Your task to perform on an android device: check android version Image 0: 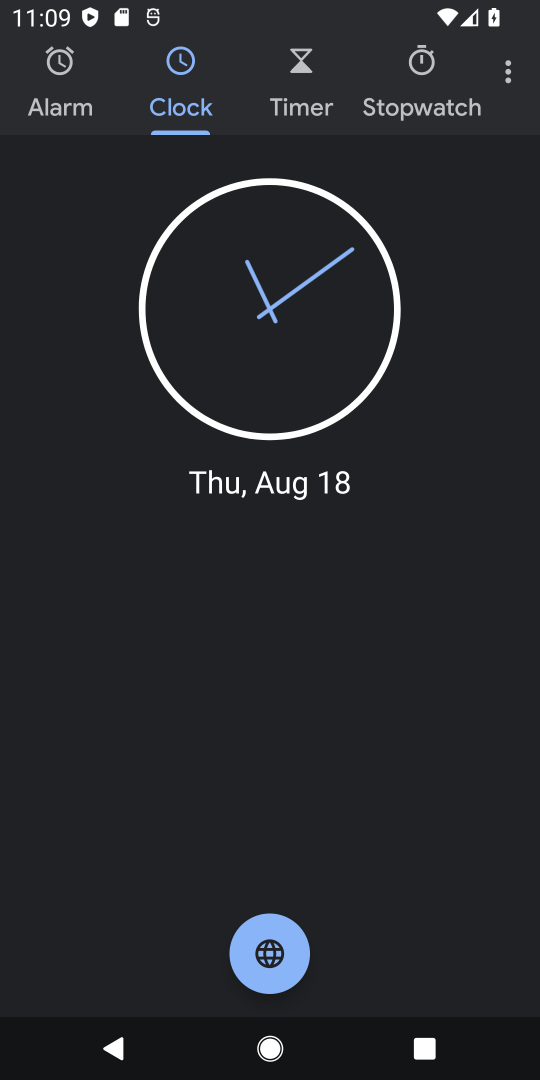
Step 0: press home button
Your task to perform on an android device: check android version Image 1: 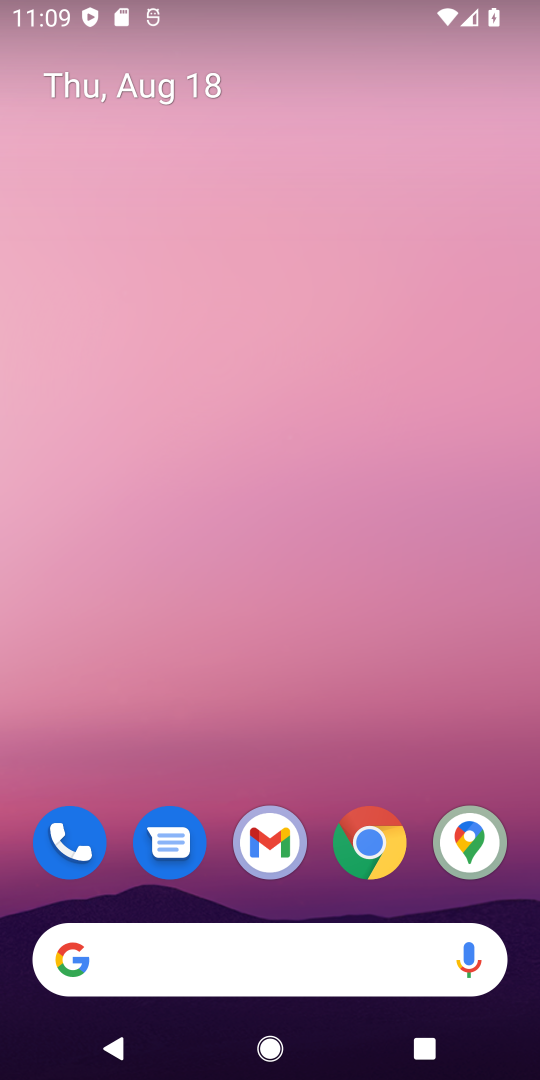
Step 1: drag from (203, 898) to (310, 155)
Your task to perform on an android device: check android version Image 2: 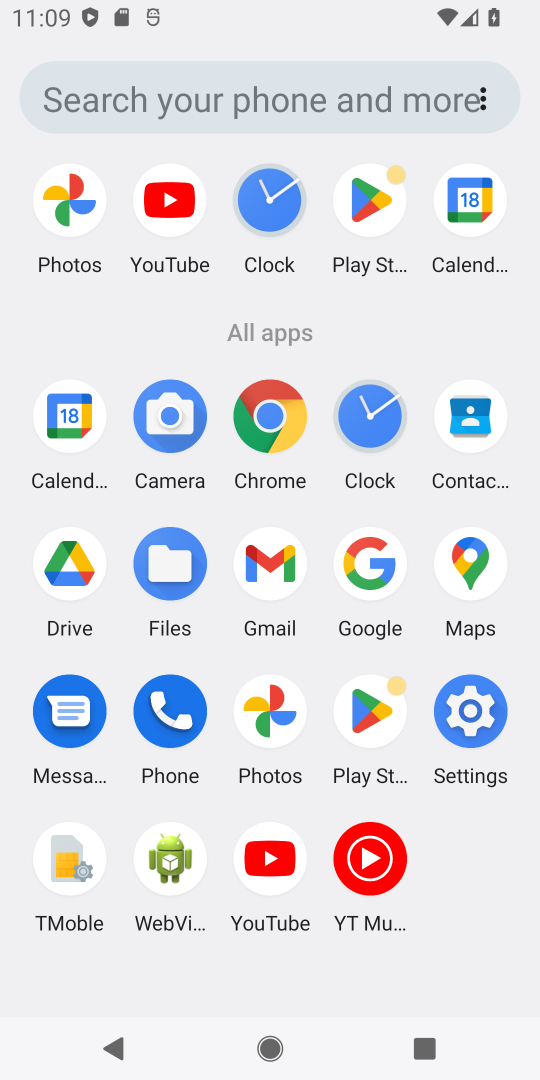
Step 2: click (477, 777)
Your task to perform on an android device: check android version Image 3: 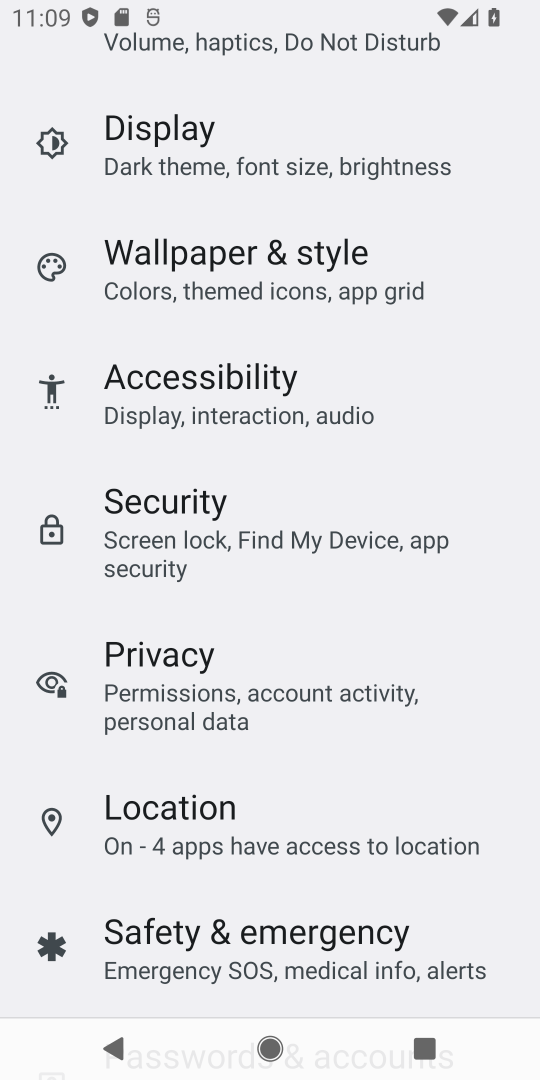
Step 3: drag from (390, 879) to (177, 67)
Your task to perform on an android device: check android version Image 4: 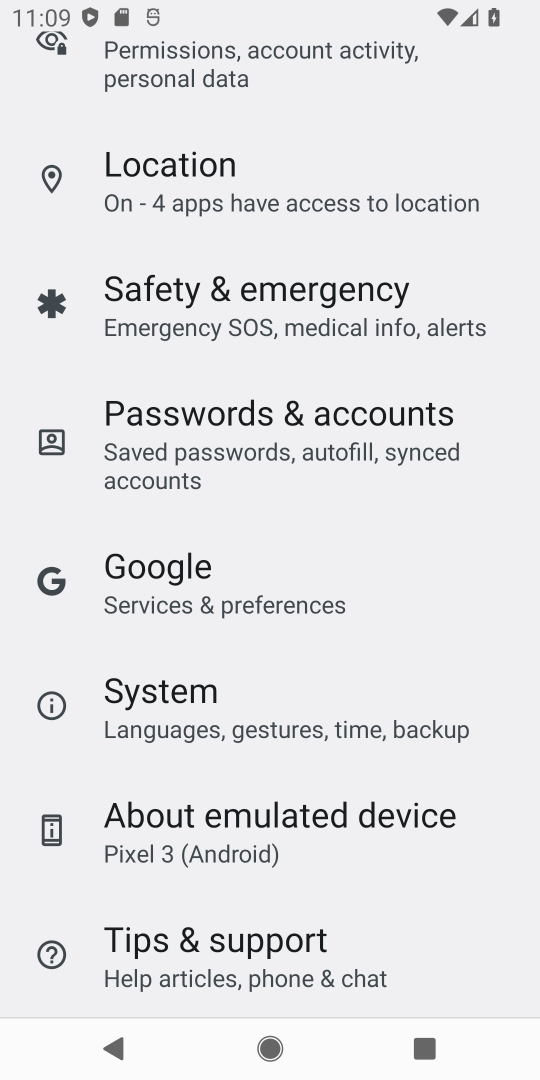
Step 4: drag from (421, 973) to (418, 292)
Your task to perform on an android device: check android version Image 5: 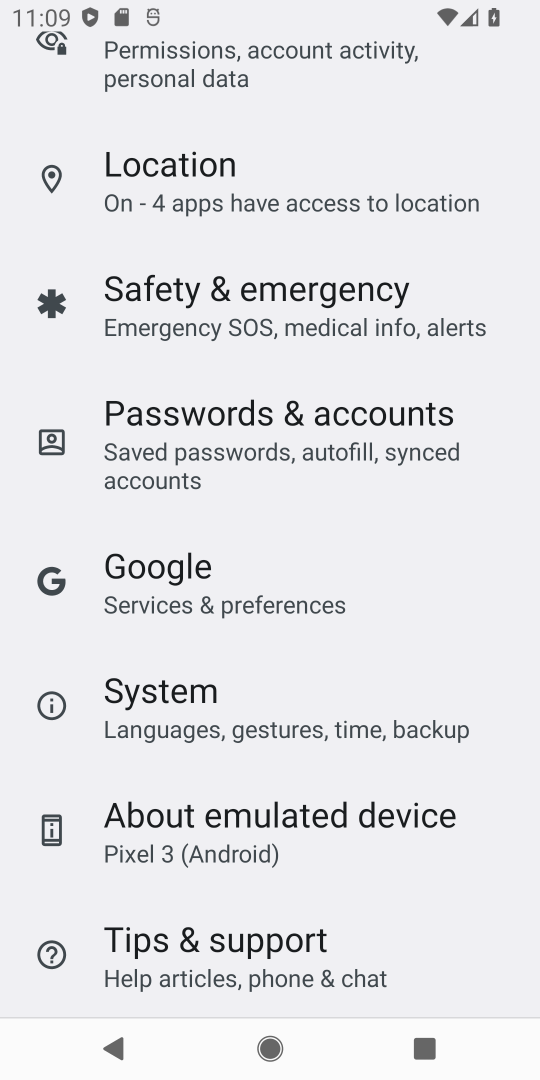
Step 5: drag from (412, 897) to (403, 357)
Your task to perform on an android device: check android version Image 6: 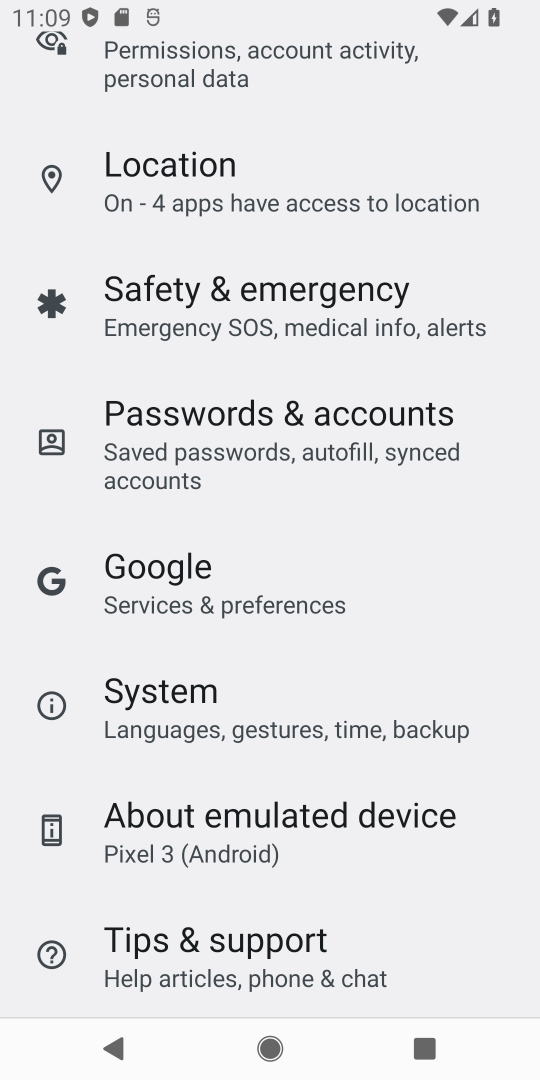
Step 6: click (378, 969)
Your task to perform on an android device: check android version Image 7: 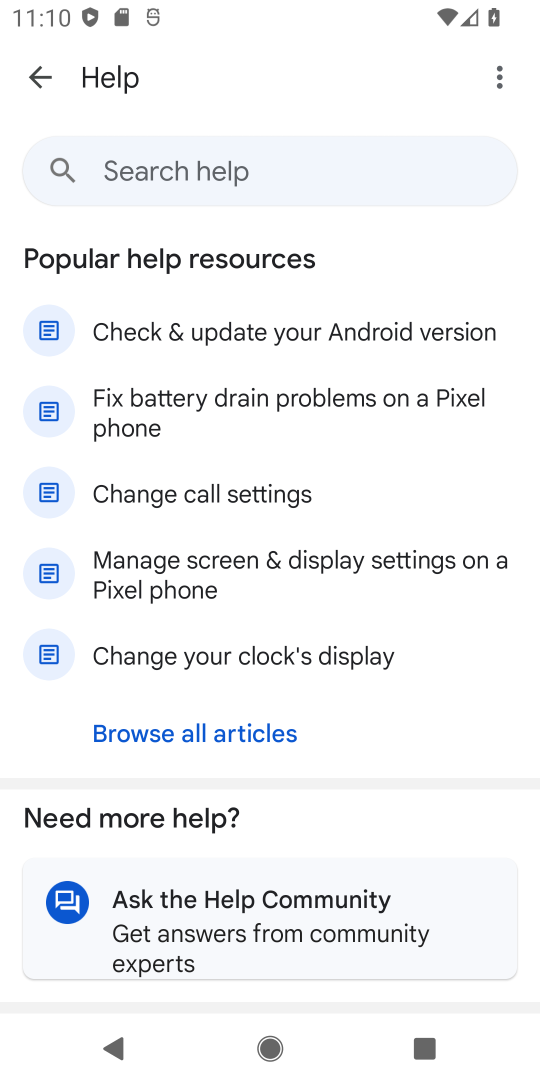
Step 7: press back button
Your task to perform on an android device: check android version Image 8: 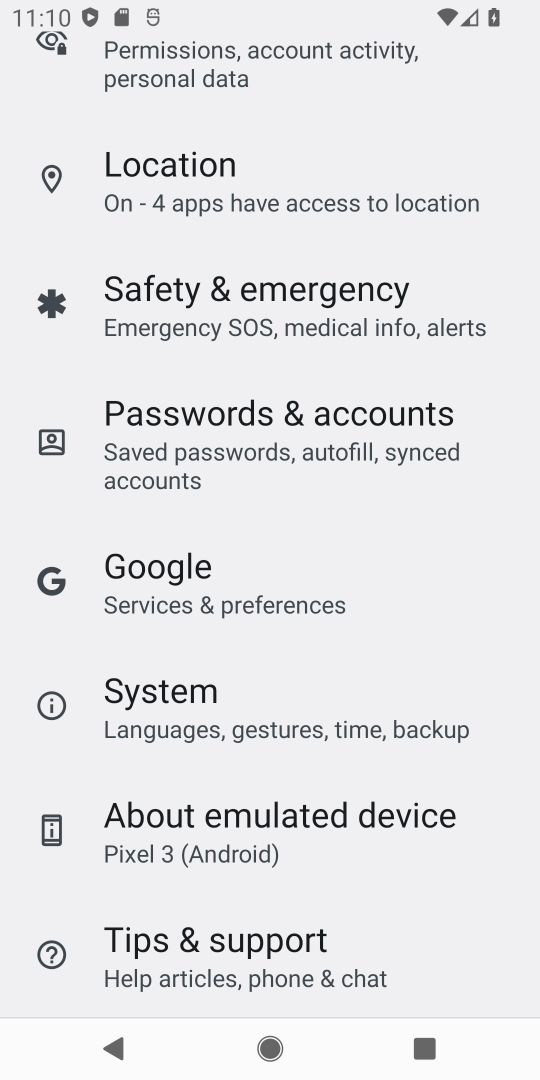
Step 8: click (285, 822)
Your task to perform on an android device: check android version Image 9: 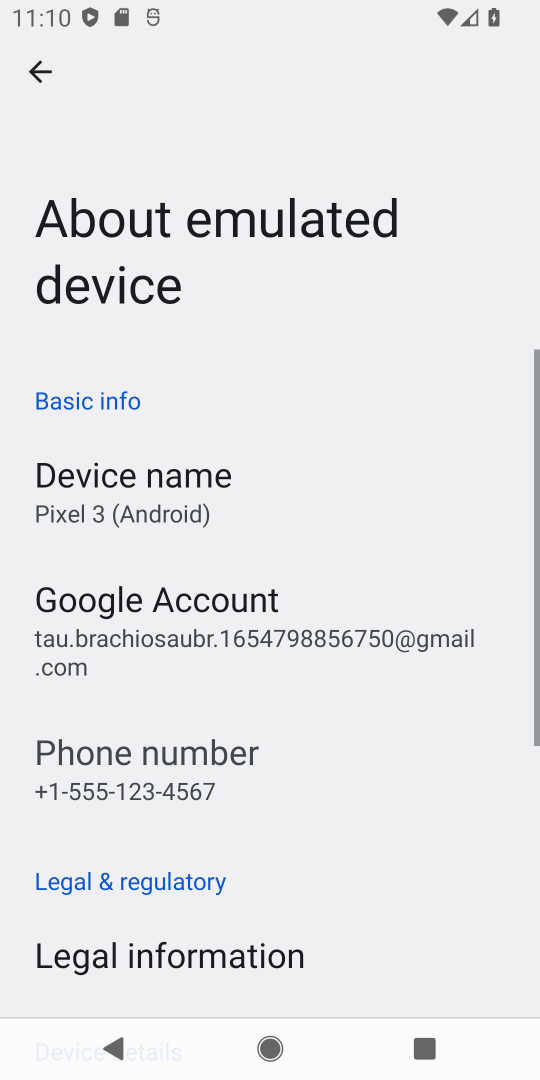
Step 9: click (112, 491)
Your task to perform on an android device: check android version Image 10: 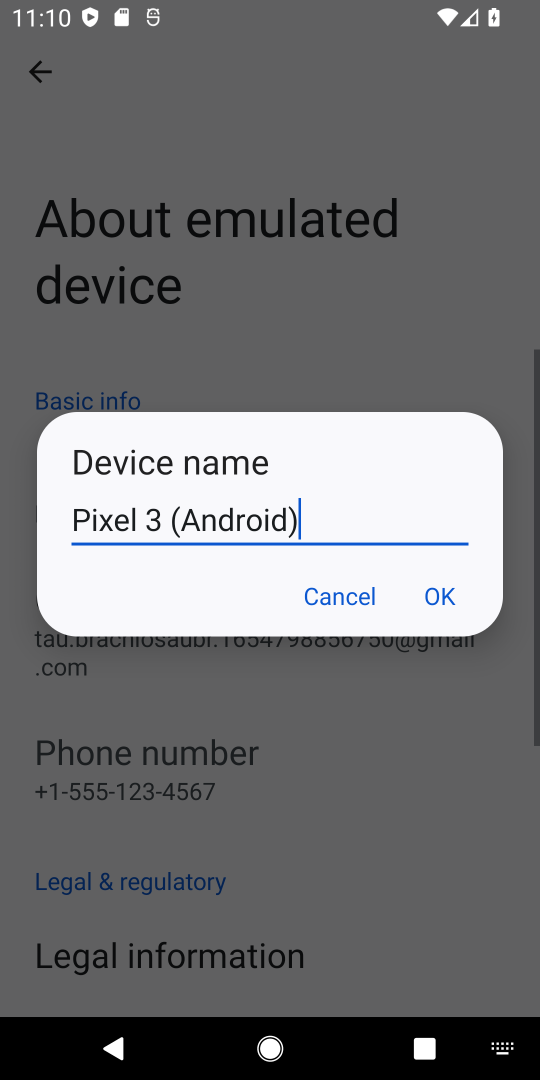
Step 10: click (457, 609)
Your task to perform on an android device: check android version Image 11: 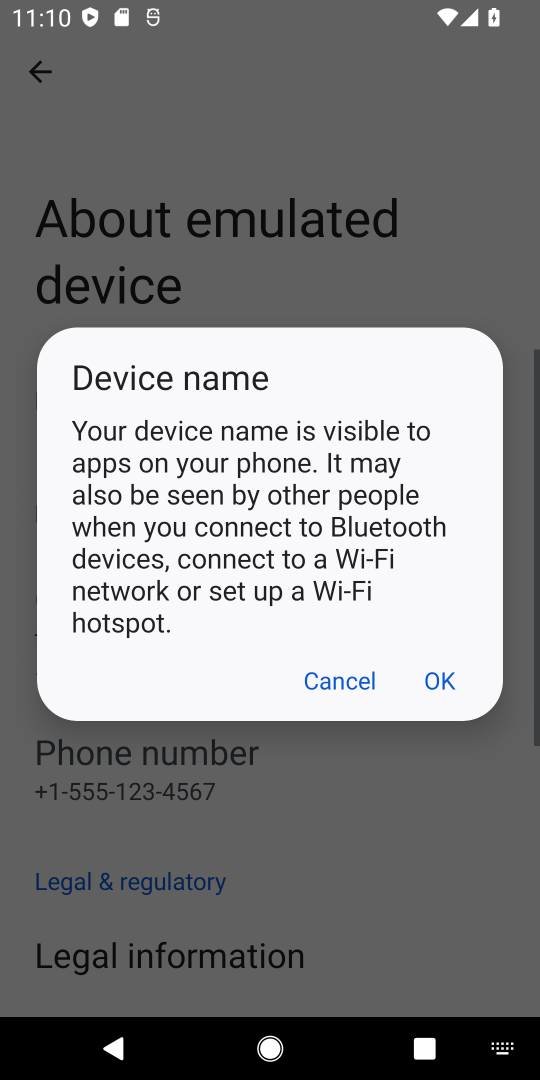
Step 11: click (442, 683)
Your task to perform on an android device: check android version Image 12: 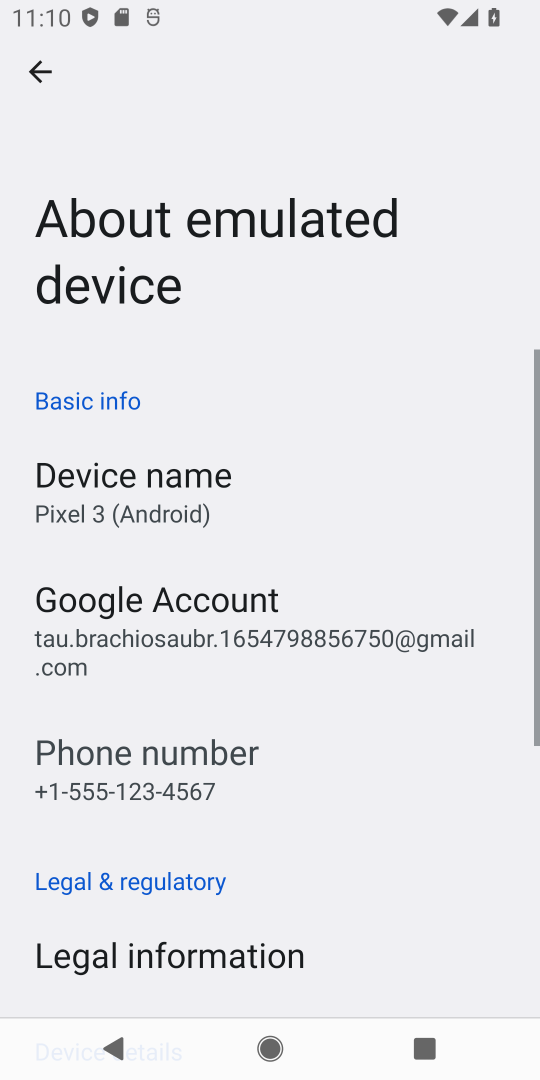
Step 12: drag from (361, 945) to (280, 344)
Your task to perform on an android device: check android version Image 13: 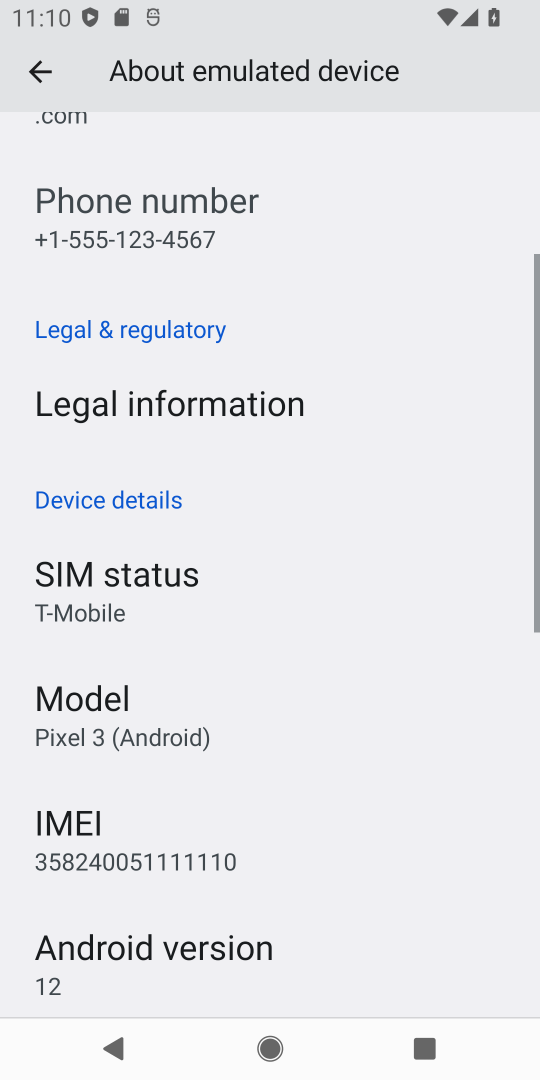
Step 13: click (241, 963)
Your task to perform on an android device: check android version Image 14: 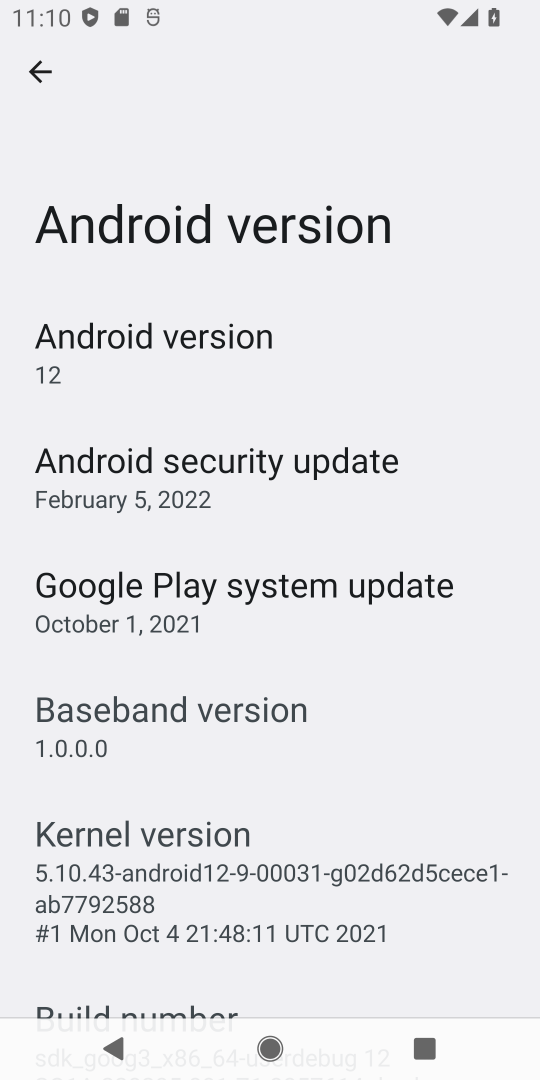
Step 14: task complete